Your task to perform on an android device: clear all cookies in the chrome app Image 0: 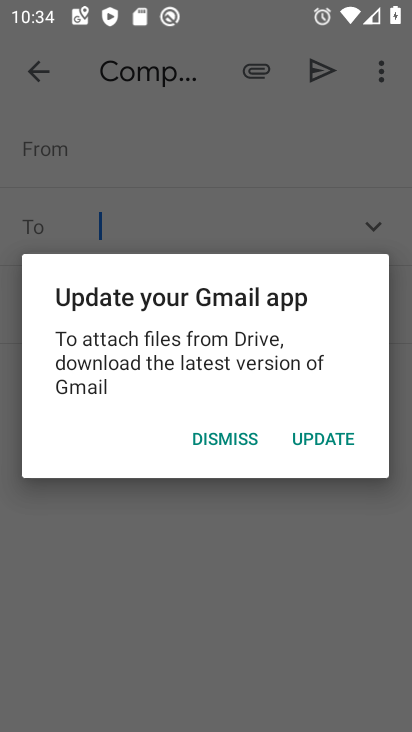
Step 0: press home button
Your task to perform on an android device: clear all cookies in the chrome app Image 1: 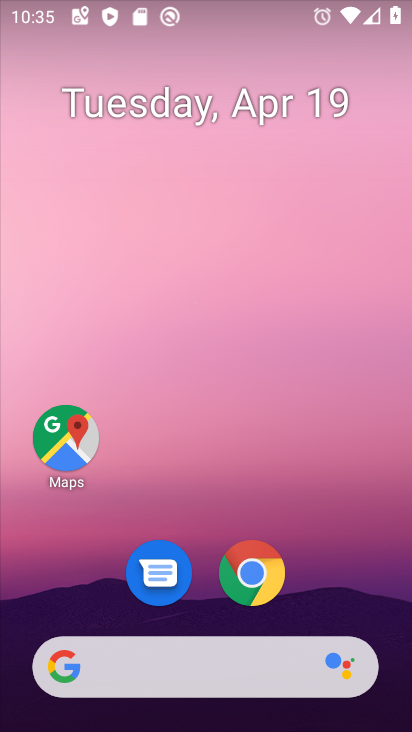
Step 1: click (253, 585)
Your task to perform on an android device: clear all cookies in the chrome app Image 2: 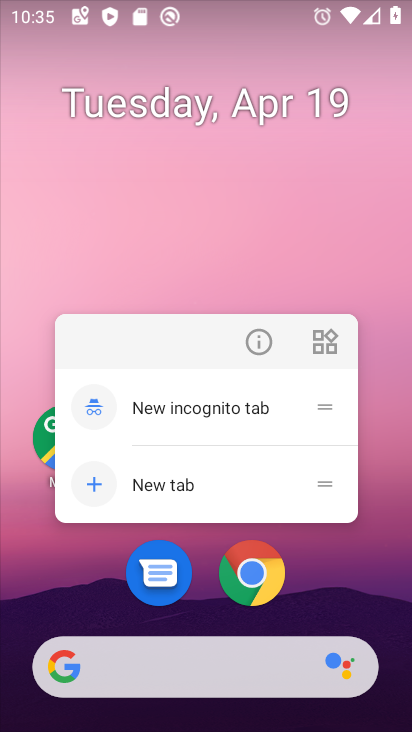
Step 2: click (253, 585)
Your task to perform on an android device: clear all cookies in the chrome app Image 3: 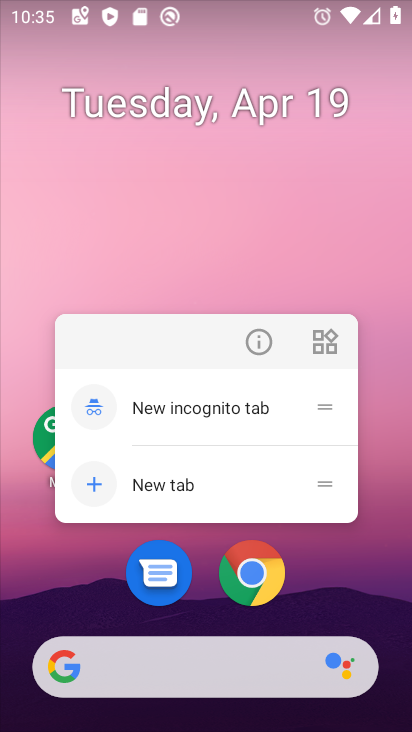
Step 3: click (253, 585)
Your task to perform on an android device: clear all cookies in the chrome app Image 4: 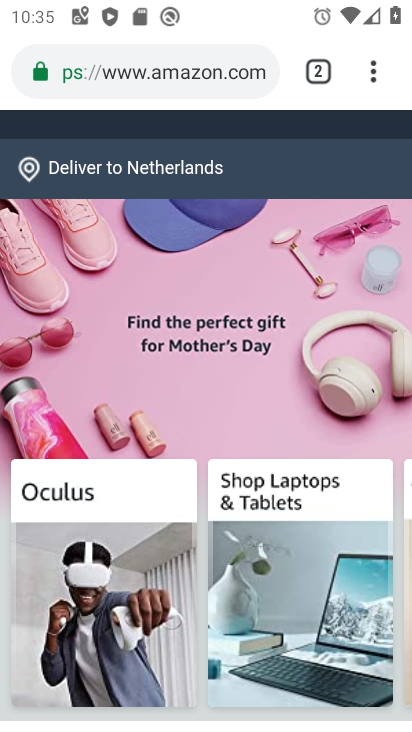
Step 4: drag from (373, 67) to (123, 490)
Your task to perform on an android device: clear all cookies in the chrome app Image 5: 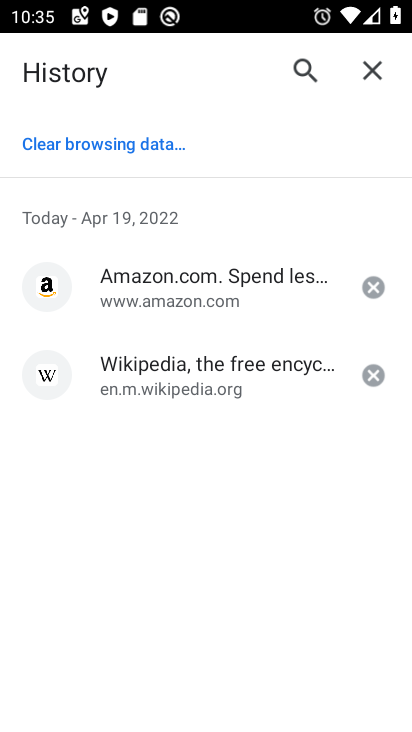
Step 5: click (120, 143)
Your task to perform on an android device: clear all cookies in the chrome app Image 6: 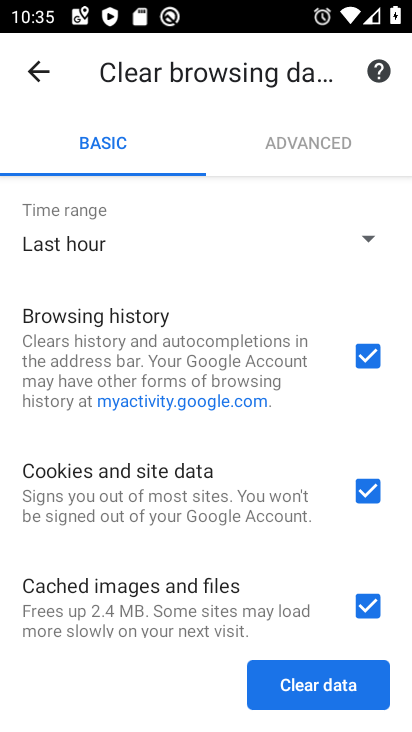
Step 6: click (320, 698)
Your task to perform on an android device: clear all cookies in the chrome app Image 7: 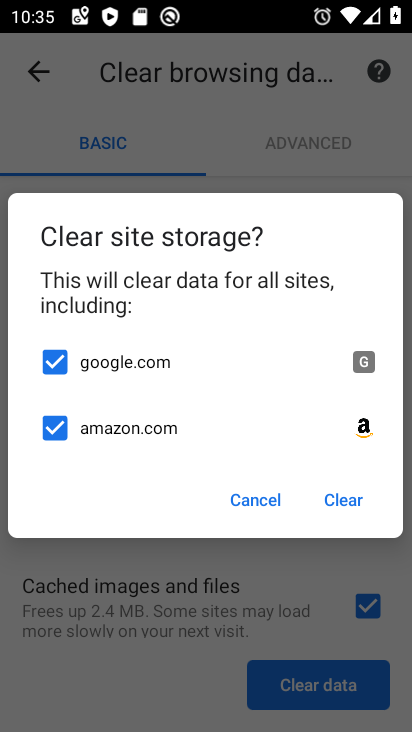
Step 7: click (355, 504)
Your task to perform on an android device: clear all cookies in the chrome app Image 8: 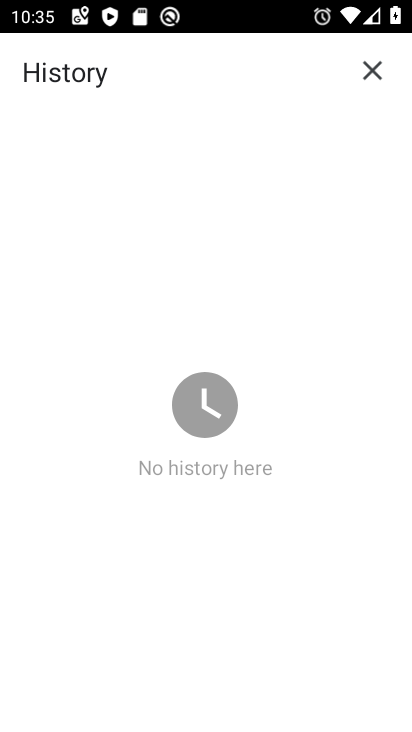
Step 8: task complete